Your task to perform on an android device: open app "Etsy: Buy & Sell Unique Items" Image 0: 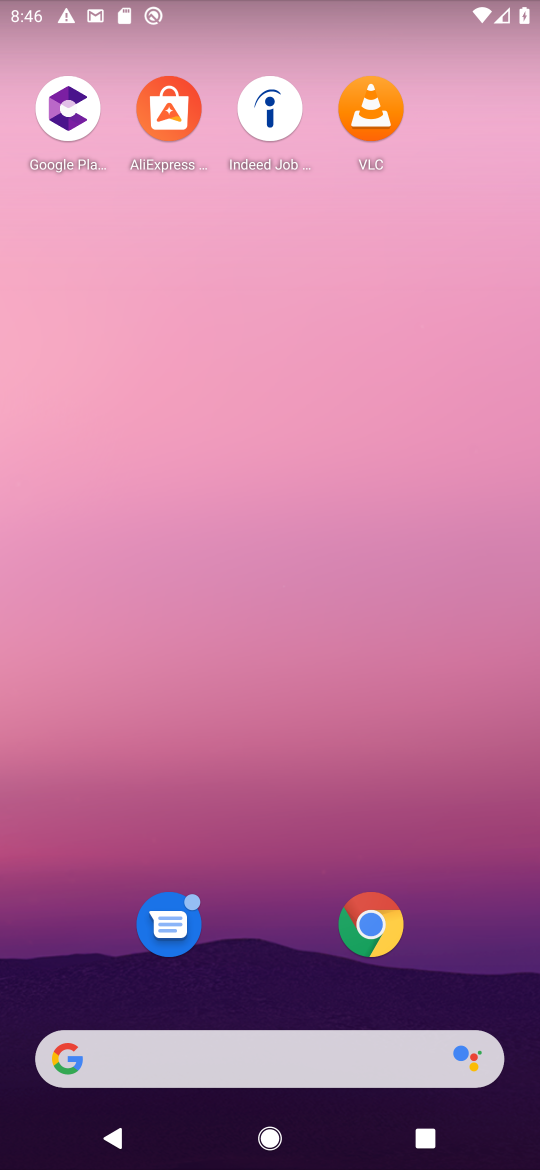
Step 0: press home button
Your task to perform on an android device: open app "Etsy: Buy & Sell Unique Items" Image 1: 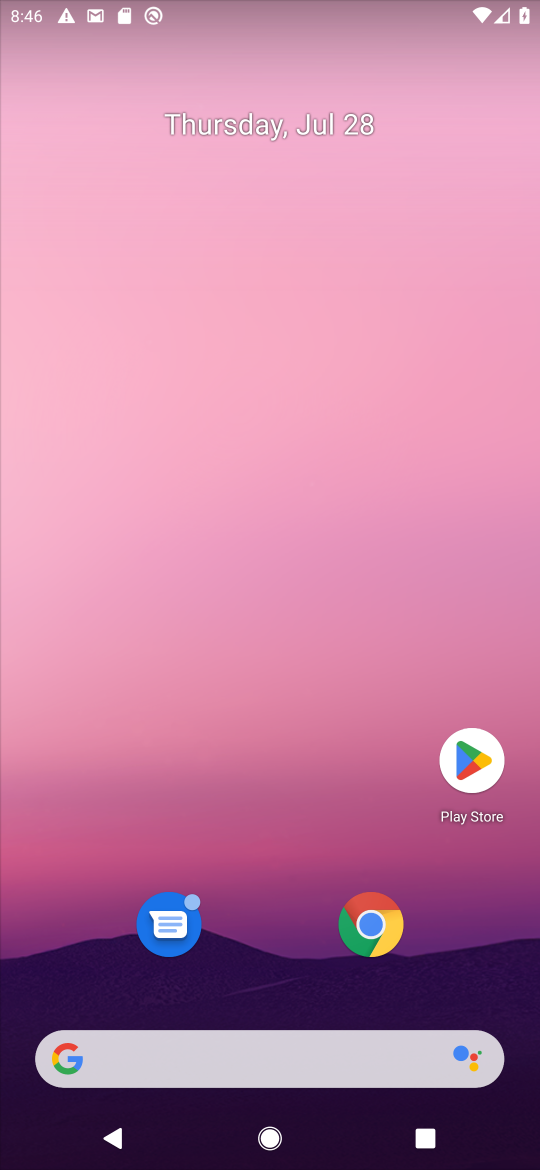
Step 1: click (470, 765)
Your task to perform on an android device: open app "Etsy: Buy & Sell Unique Items" Image 2: 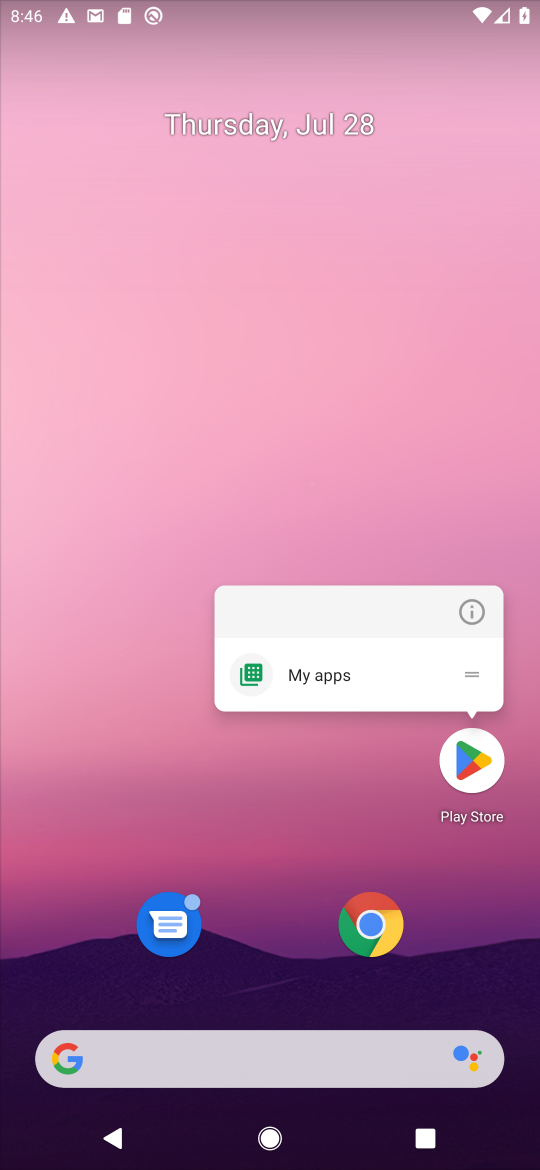
Step 2: click (463, 761)
Your task to perform on an android device: open app "Etsy: Buy & Sell Unique Items" Image 3: 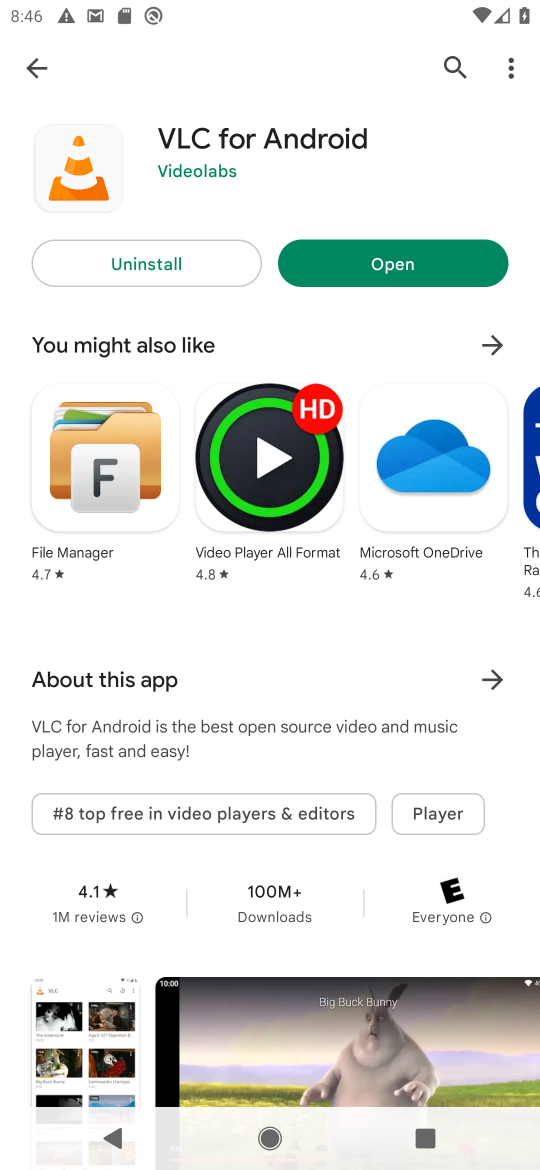
Step 3: click (37, 66)
Your task to perform on an android device: open app "Etsy: Buy & Sell Unique Items" Image 4: 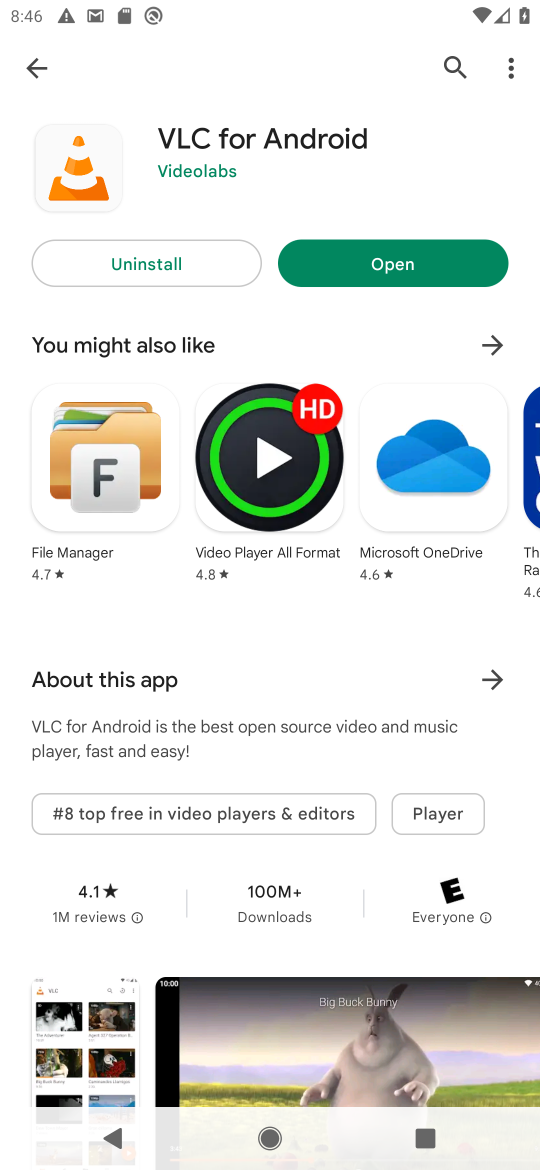
Step 4: click (448, 66)
Your task to perform on an android device: open app "Etsy: Buy & Sell Unique Items" Image 5: 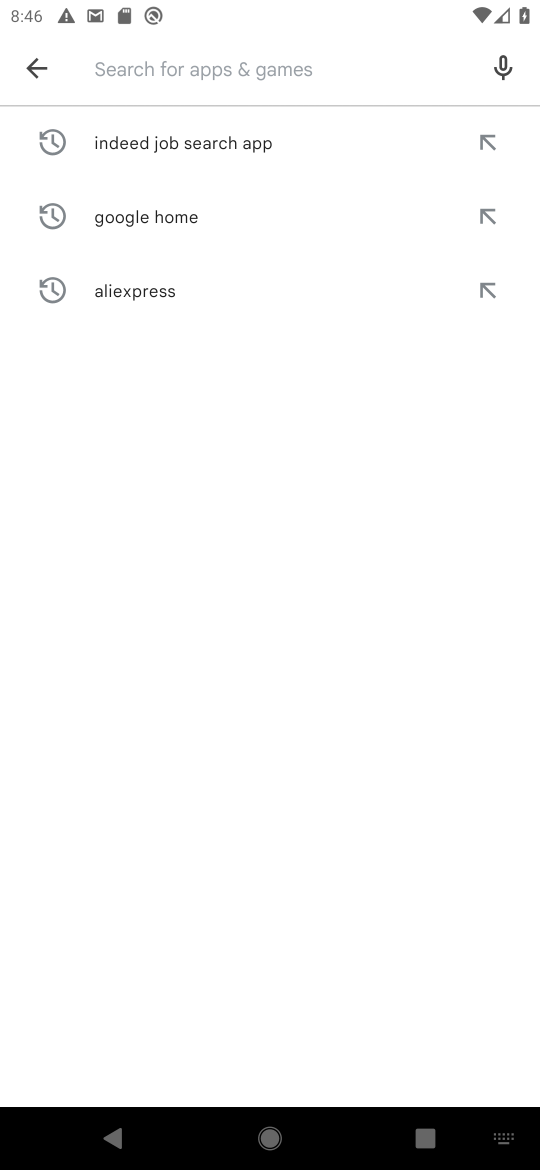
Step 5: click (176, 76)
Your task to perform on an android device: open app "Etsy: Buy & Sell Unique Items" Image 6: 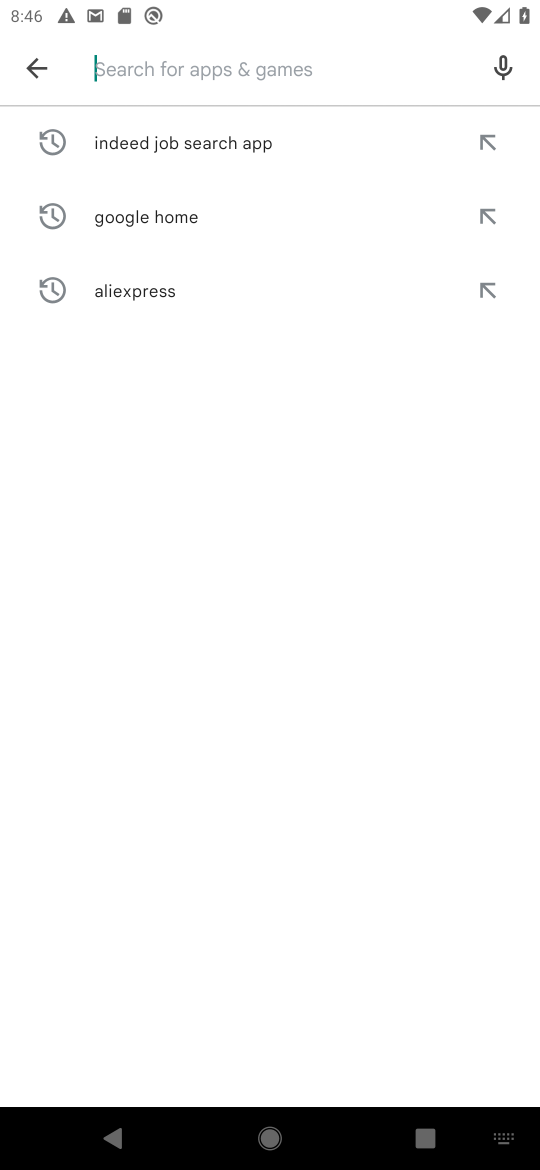
Step 6: type "Etsy: Buy & Sell Unique Items"
Your task to perform on an android device: open app "Etsy: Buy & Sell Unique Items" Image 7: 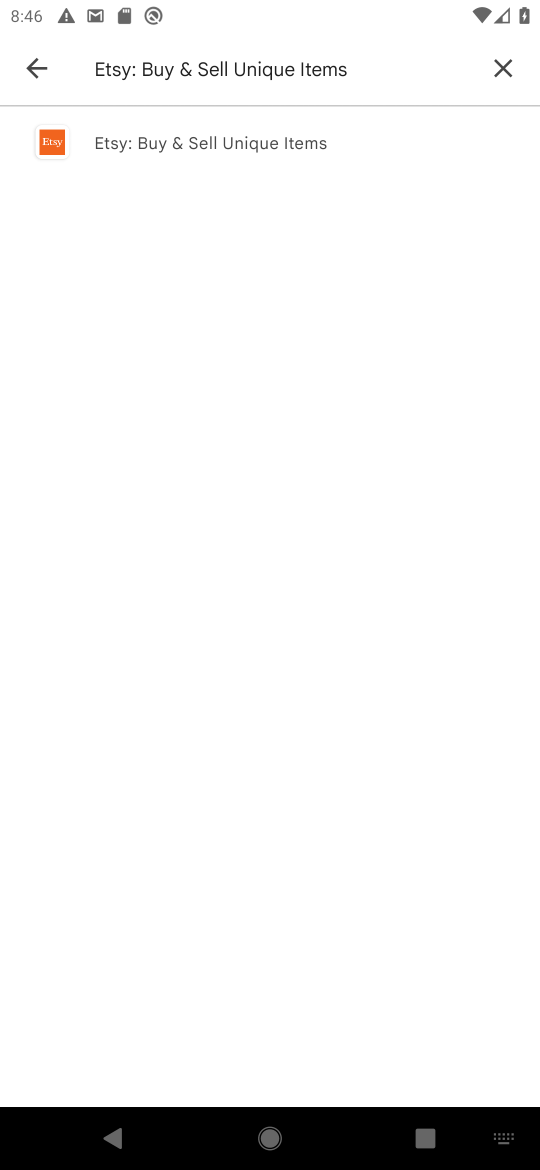
Step 7: click (164, 139)
Your task to perform on an android device: open app "Etsy: Buy & Sell Unique Items" Image 8: 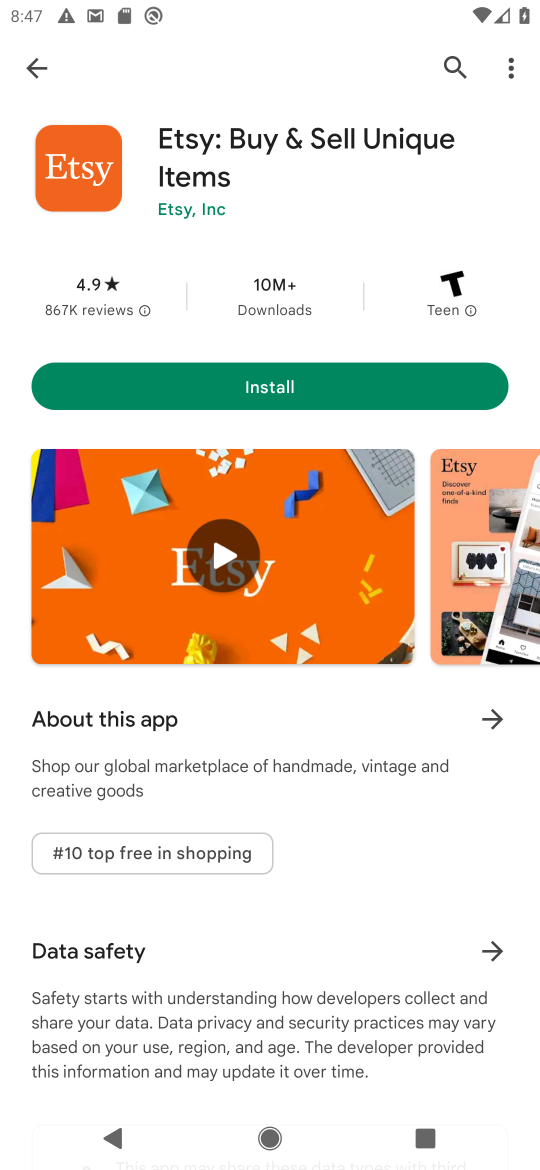
Step 8: task complete